Your task to perform on an android device: Open Google Image 0: 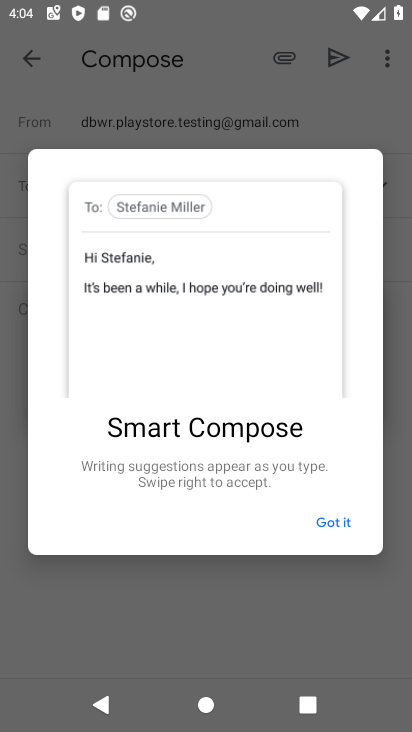
Step 0: press home button
Your task to perform on an android device: Open Google Image 1: 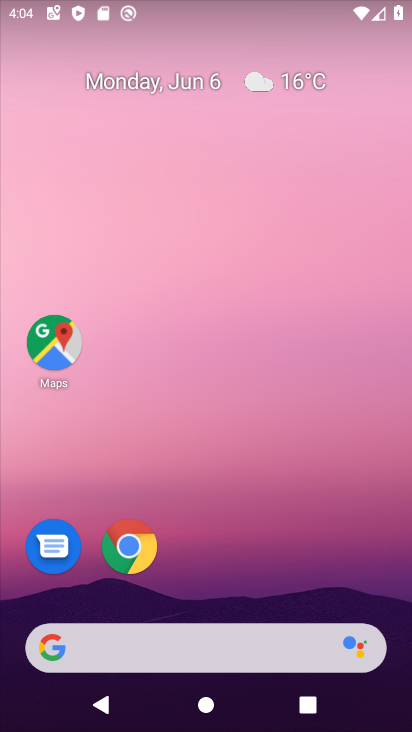
Step 1: drag from (326, 590) to (402, 42)
Your task to perform on an android device: Open Google Image 2: 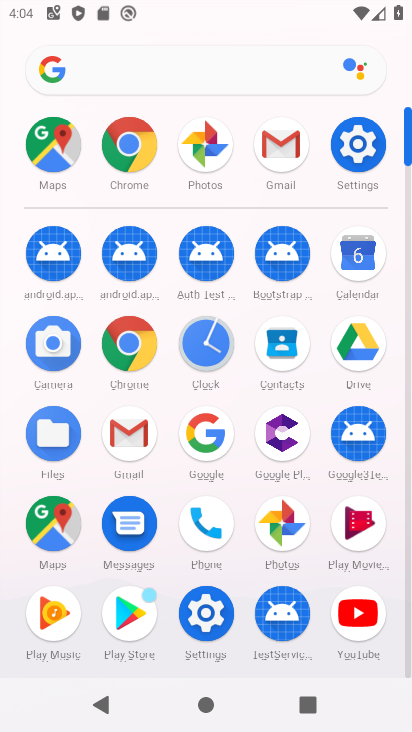
Step 2: click (220, 432)
Your task to perform on an android device: Open Google Image 3: 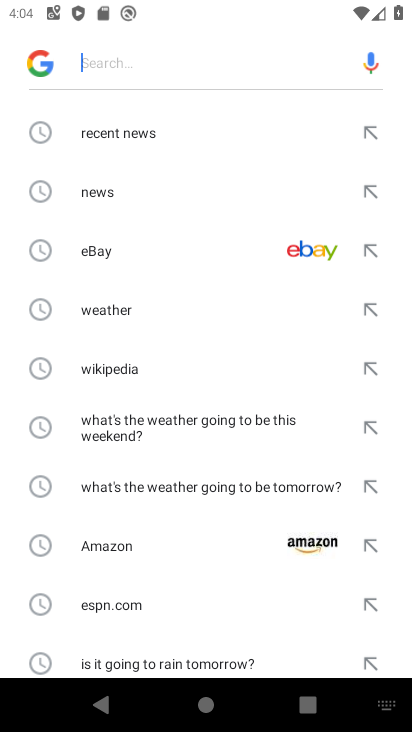
Step 3: task complete